Your task to perform on an android device: Open calendar and show me the third week of next month Image 0: 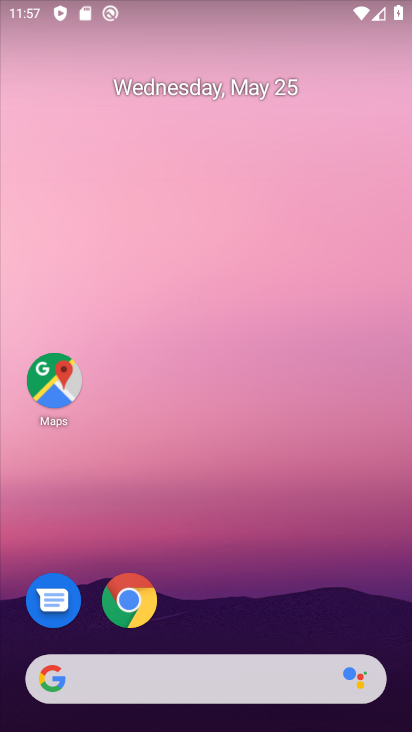
Step 0: drag from (237, 602) to (242, 76)
Your task to perform on an android device: Open calendar and show me the third week of next month Image 1: 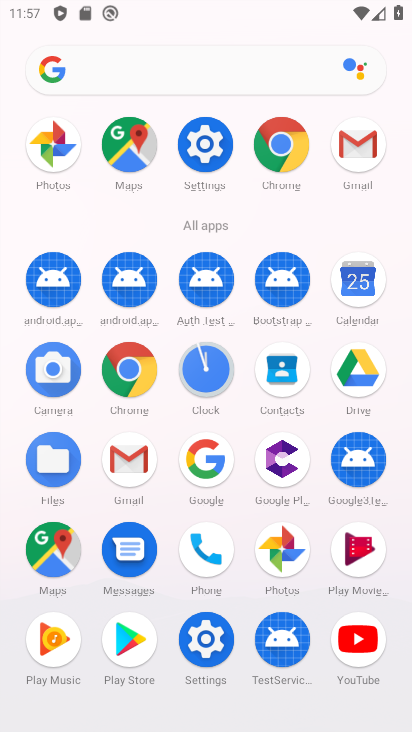
Step 1: click (205, 365)
Your task to perform on an android device: Open calendar and show me the third week of next month Image 2: 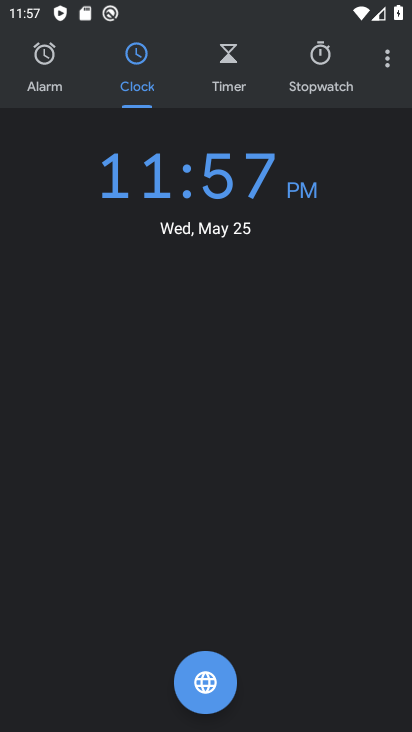
Step 2: press home button
Your task to perform on an android device: Open calendar and show me the third week of next month Image 3: 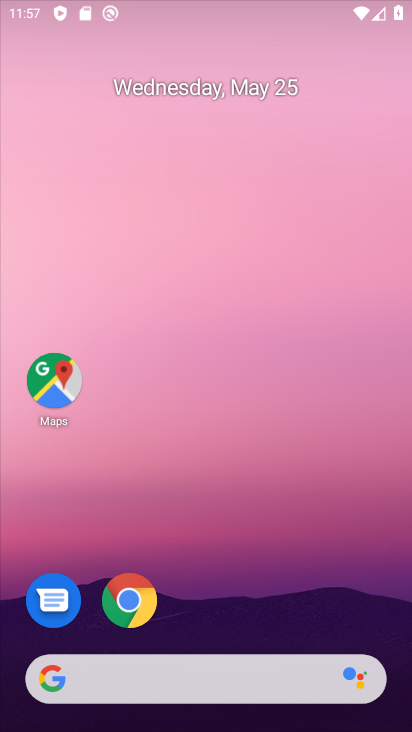
Step 3: drag from (317, 577) to (358, 100)
Your task to perform on an android device: Open calendar and show me the third week of next month Image 4: 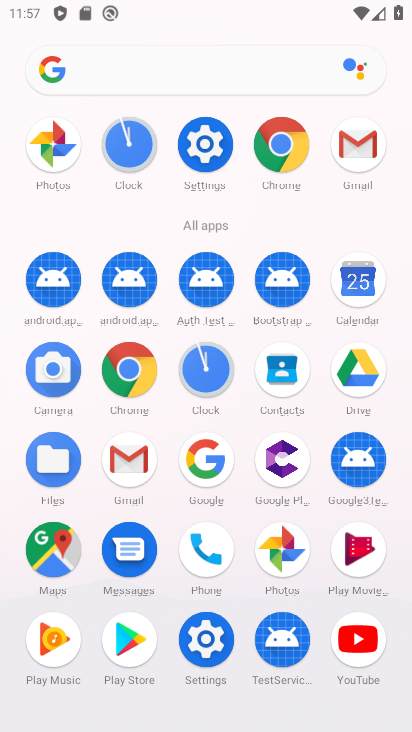
Step 4: click (365, 279)
Your task to perform on an android device: Open calendar and show me the third week of next month Image 5: 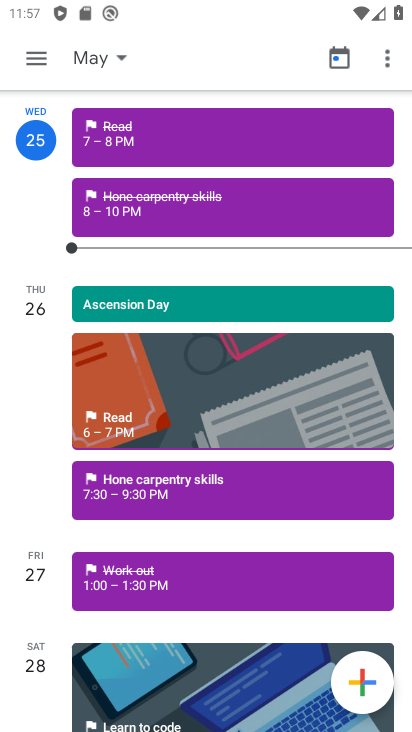
Step 5: click (113, 67)
Your task to perform on an android device: Open calendar and show me the third week of next month Image 6: 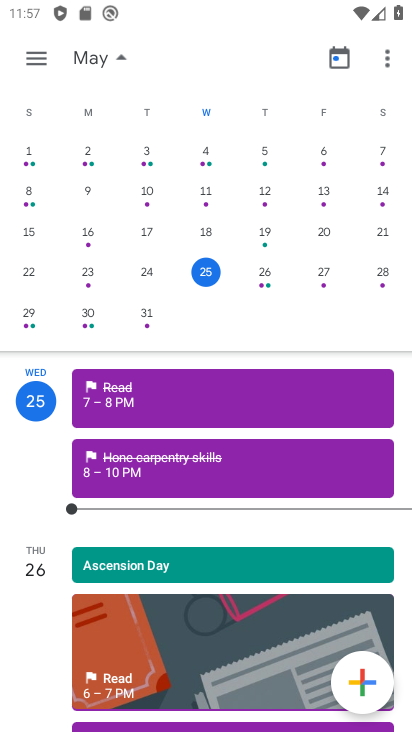
Step 6: drag from (381, 262) to (116, 177)
Your task to perform on an android device: Open calendar and show me the third week of next month Image 7: 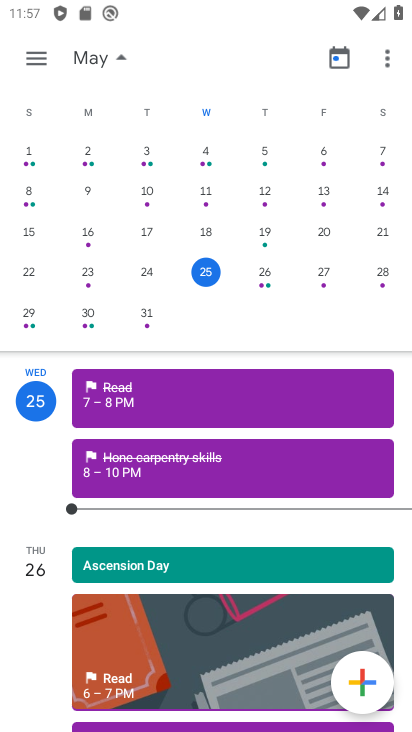
Step 7: drag from (379, 255) to (51, 189)
Your task to perform on an android device: Open calendar and show me the third week of next month Image 8: 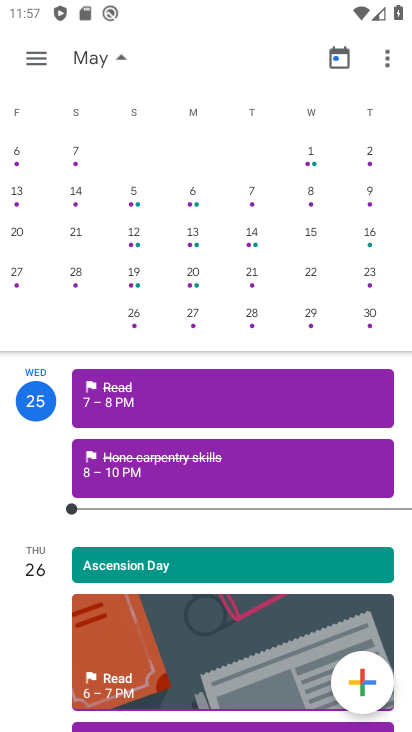
Step 8: click (47, 190)
Your task to perform on an android device: Open calendar and show me the third week of next month Image 9: 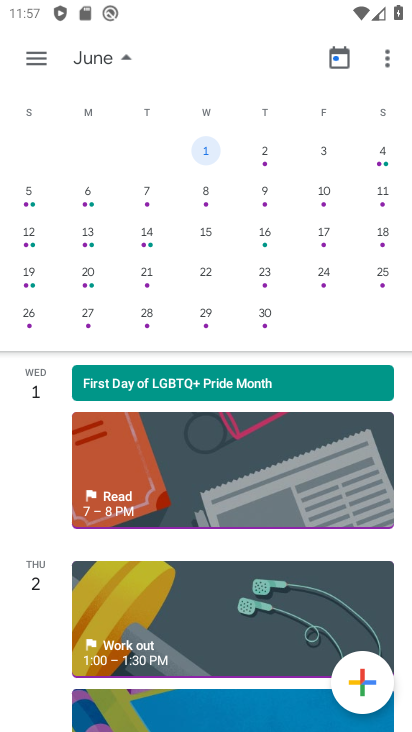
Step 9: click (37, 278)
Your task to perform on an android device: Open calendar and show me the third week of next month Image 10: 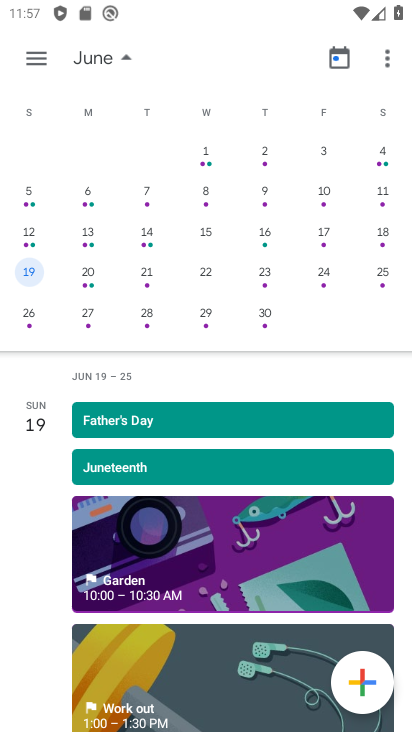
Step 10: drag from (122, 404) to (223, 23)
Your task to perform on an android device: Open calendar and show me the third week of next month Image 11: 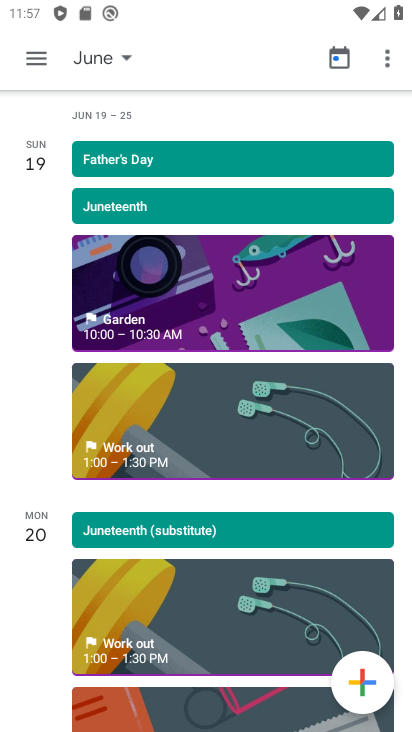
Step 11: click (36, 55)
Your task to perform on an android device: Open calendar and show me the third week of next month Image 12: 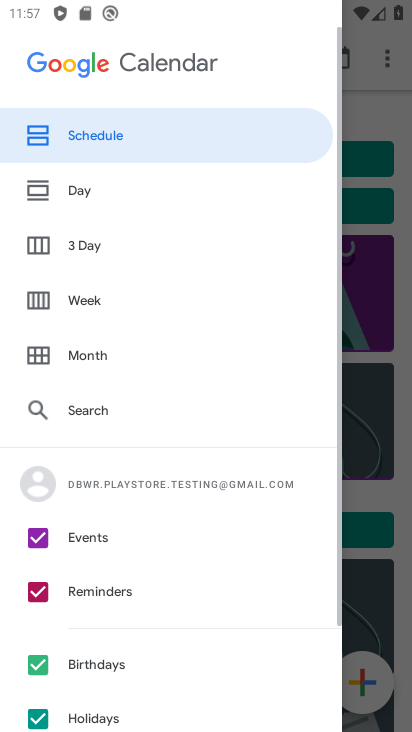
Step 12: click (101, 313)
Your task to perform on an android device: Open calendar and show me the third week of next month Image 13: 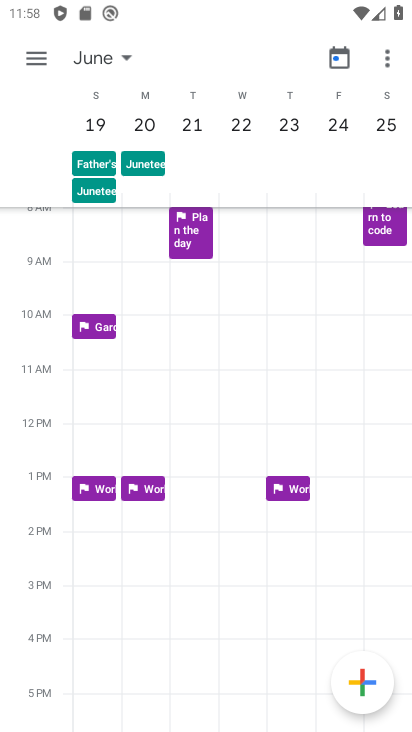
Step 13: task complete